Your task to perform on an android device: turn off translation in the chrome app Image 0: 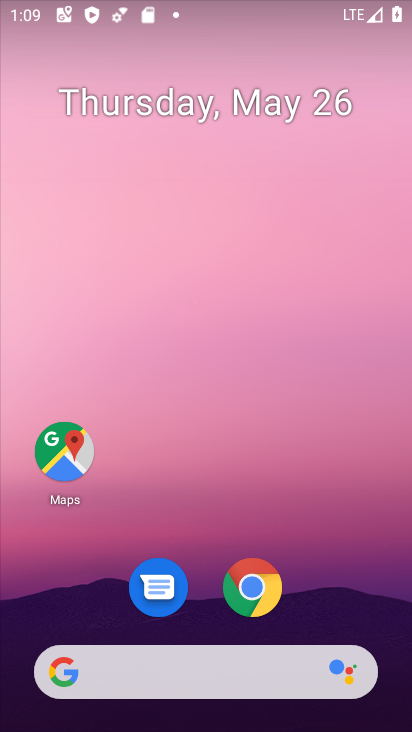
Step 0: drag from (379, 609) to (365, 215)
Your task to perform on an android device: turn off translation in the chrome app Image 1: 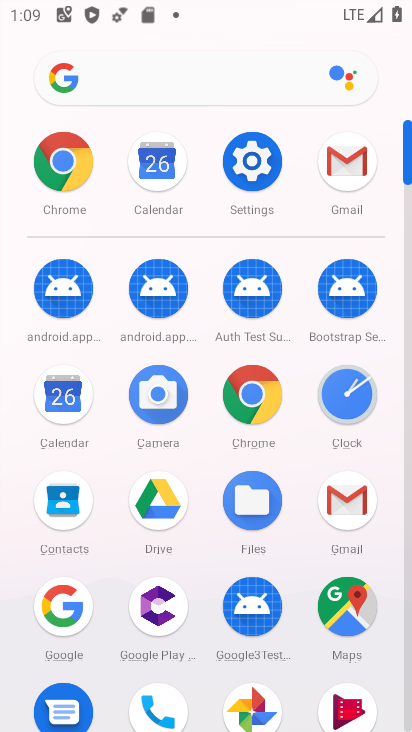
Step 1: click (259, 408)
Your task to perform on an android device: turn off translation in the chrome app Image 2: 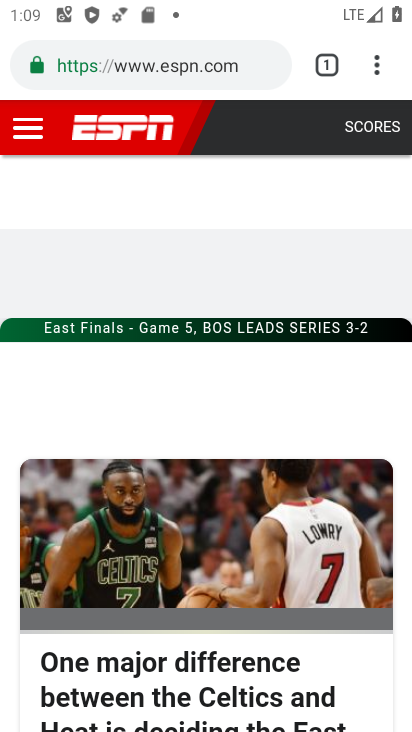
Step 2: click (259, 408)
Your task to perform on an android device: turn off translation in the chrome app Image 3: 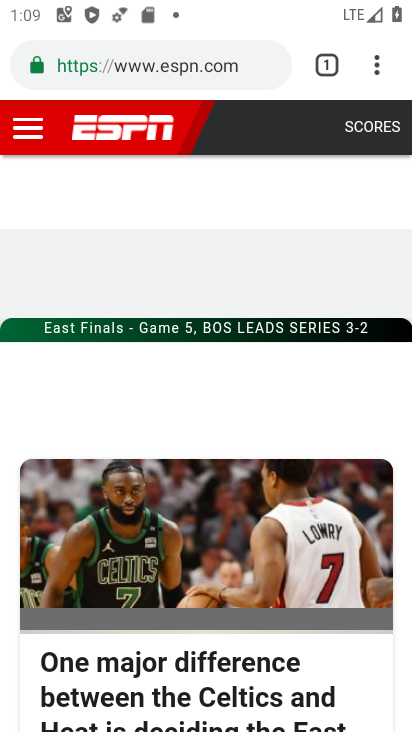
Step 3: click (383, 75)
Your task to perform on an android device: turn off translation in the chrome app Image 4: 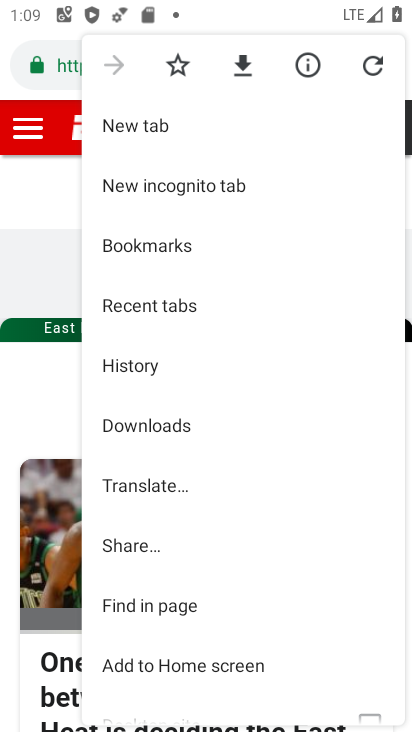
Step 4: drag from (266, 562) to (264, 408)
Your task to perform on an android device: turn off translation in the chrome app Image 5: 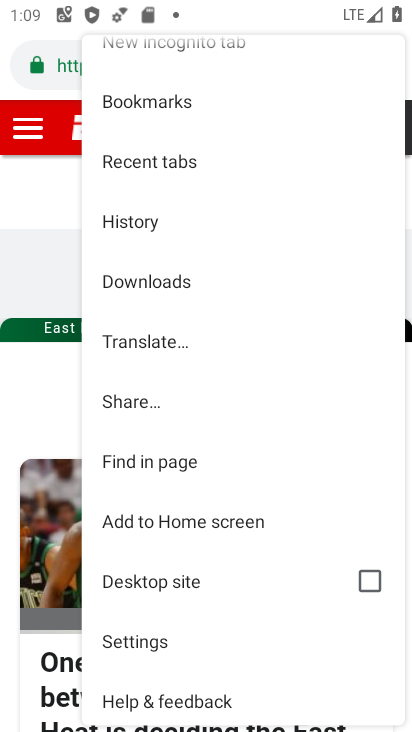
Step 5: drag from (256, 613) to (258, 477)
Your task to perform on an android device: turn off translation in the chrome app Image 6: 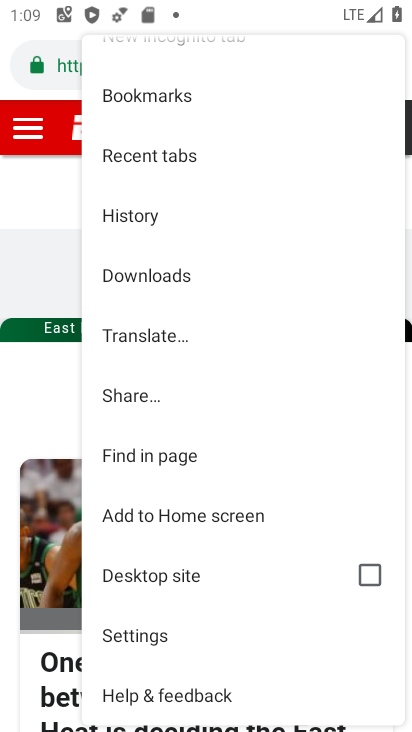
Step 6: click (142, 634)
Your task to perform on an android device: turn off translation in the chrome app Image 7: 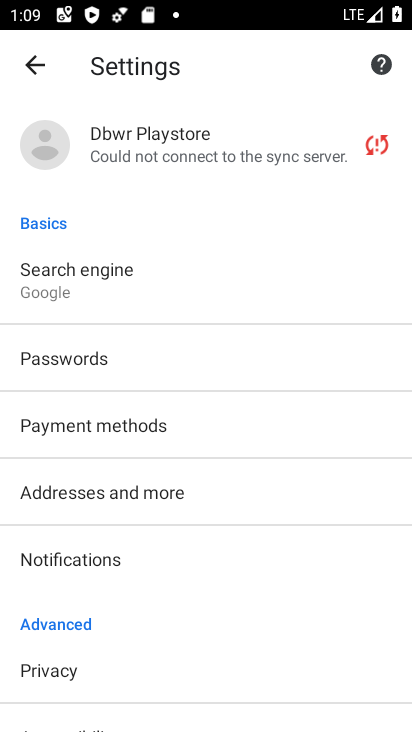
Step 7: drag from (259, 631) to (258, 453)
Your task to perform on an android device: turn off translation in the chrome app Image 8: 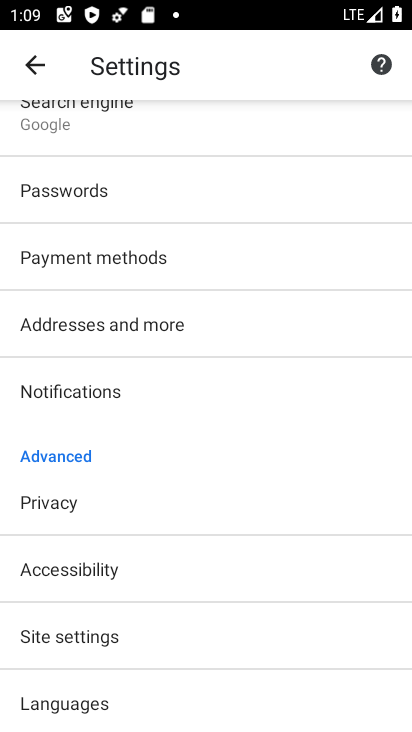
Step 8: drag from (260, 611) to (255, 490)
Your task to perform on an android device: turn off translation in the chrome app Image 9: 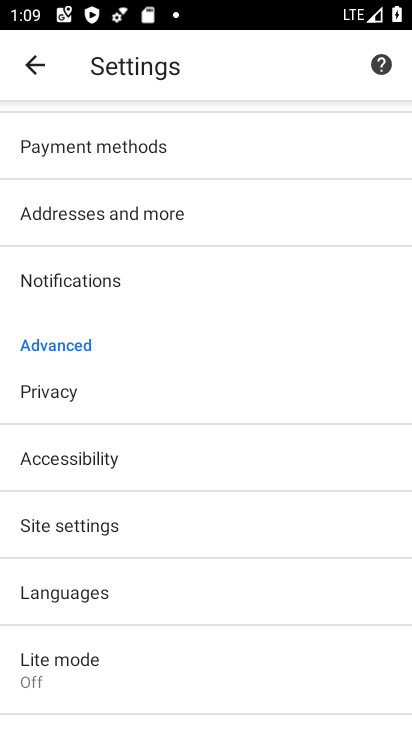
Step 9: drag from (265, 583) to (265, 457)
Your task to perform on an android device: turn off translation in the chrome app Image 10: 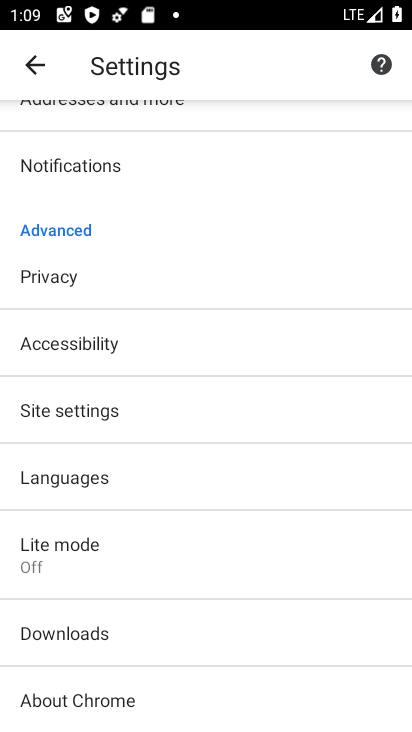
Step 10: drag from (248, 601) to (252, 535)
Your task to perform on an android device: turn off translation in the chrome app Image 11: 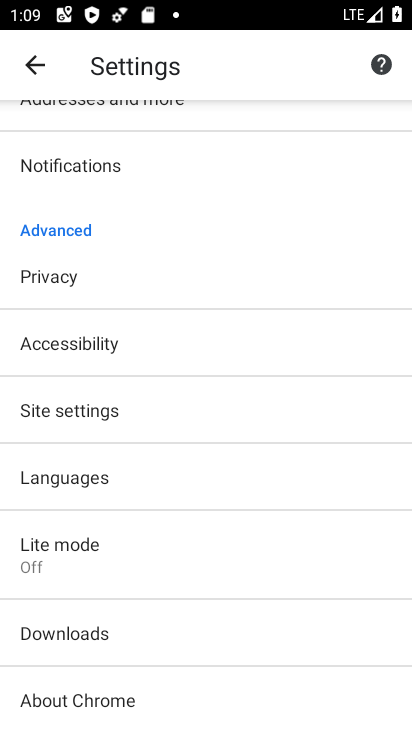
Step 11: drag from (236, 423) to (235, 515)
Your task to perform on an android device: turn off translation in the chrome app Image 12: 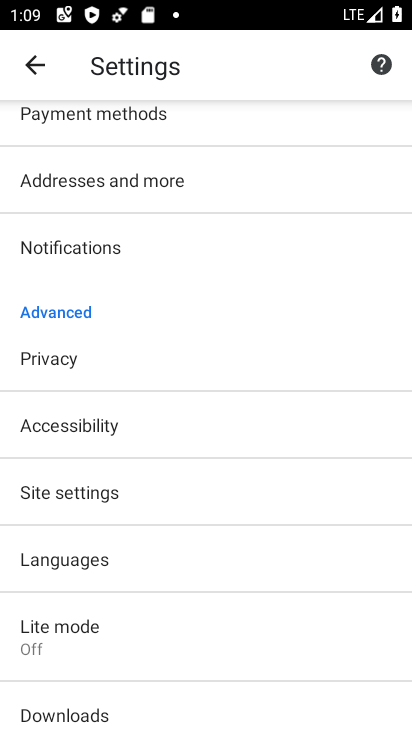
Step 12: drag from (246, 350) to (248, 445)
Your task to perform on an android device: turn off translation in the chrome app Image 13: 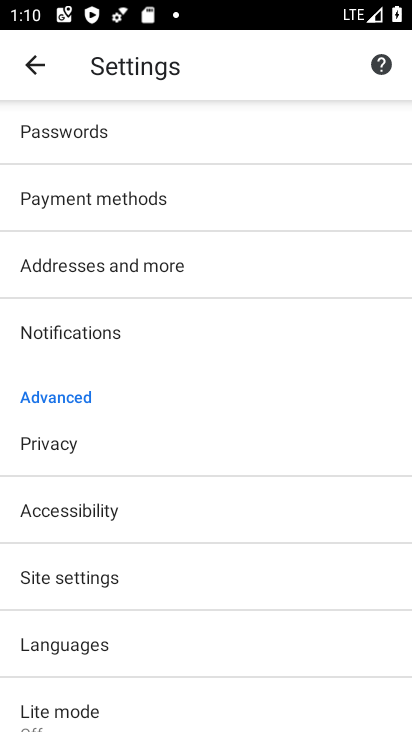
Step 13: drag from (263, 323) to (265, 455)
Your task to perform on an android device: turn off translation in the chrome app Image 14: 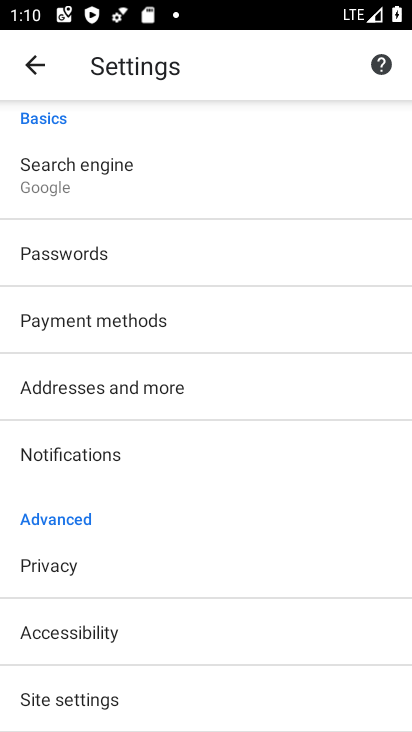
Step 14: drag from (267, 317) to (258, 430)
Your task to perform on an android device: turn off translation in the chrome app Image 15: 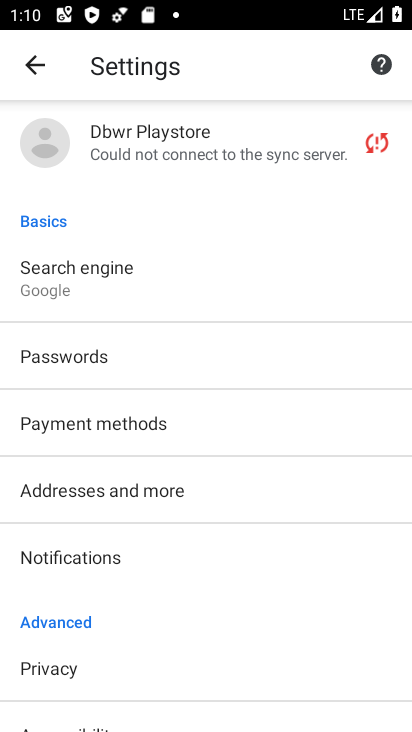
Step 15: drag from (259, 527) to (265, 391)
Your task to perform on an android device: turn off translation in the chrome app Image 16: 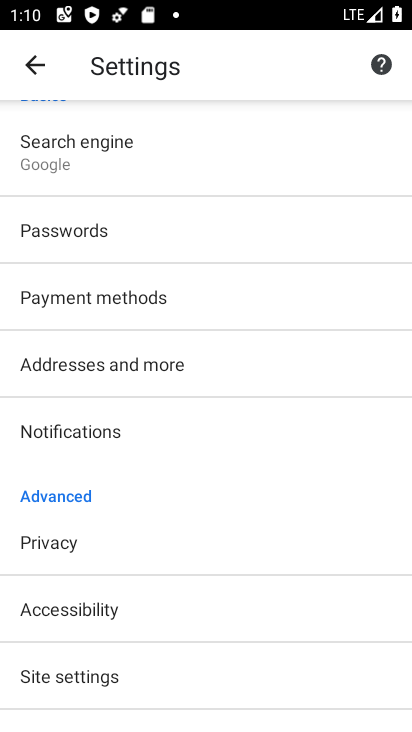
Step 16: drag from (263, 579) to (280, 449)
Your task to perform on an android device: turn off translation in the chrome app Image 17: 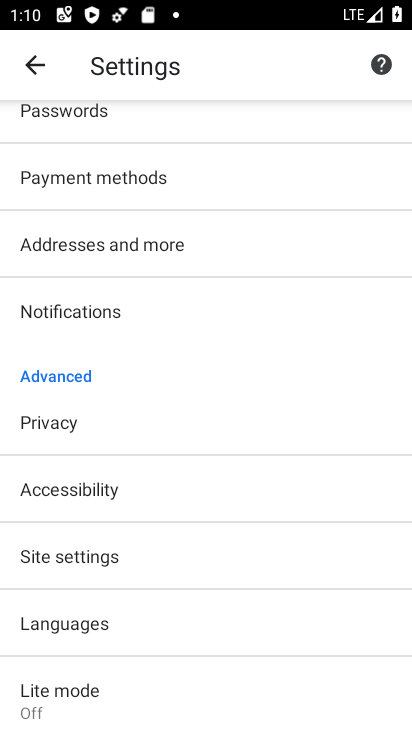
Step 17: drag from (263, 618) to (264, 473)
Your task to perform on an android device: turn off translation in the chrome app Image 18: 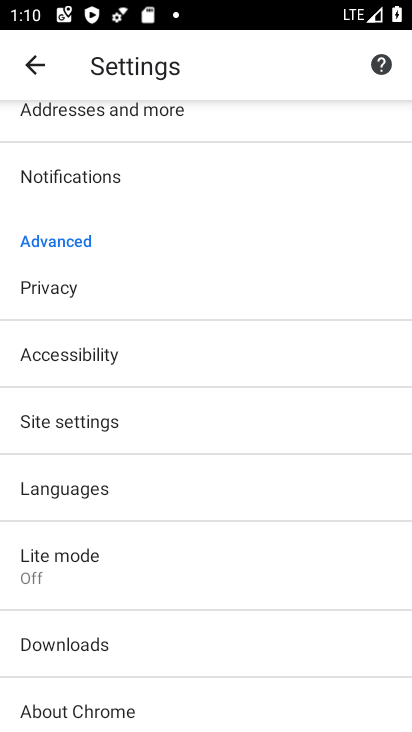
Step 18: click (152, 501)
Your task to perform on an android device: turn off translation in the chrome app Image 19: 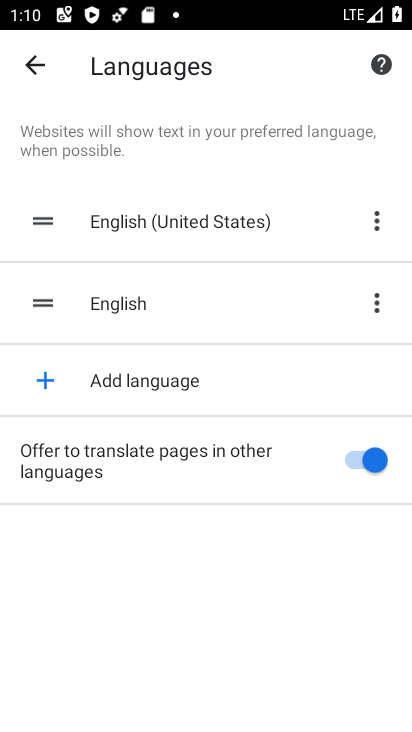
Step 19: click (368, 468)
Your task to perform on an android device: turn off translation in the chrome app Image 20: 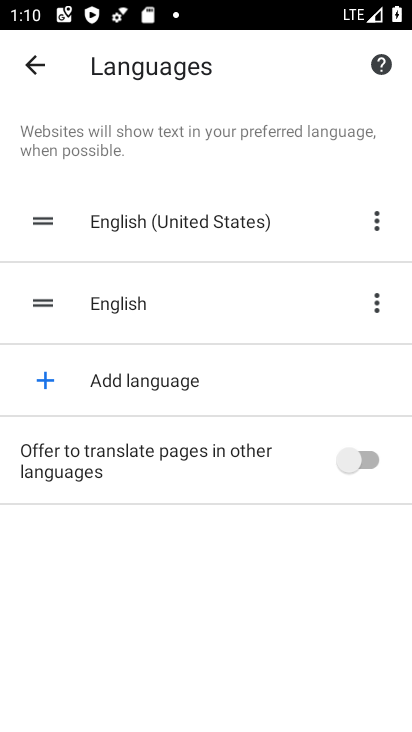
Step 20: task complete